Your task to perform on an android device: change timer sound Image 0: 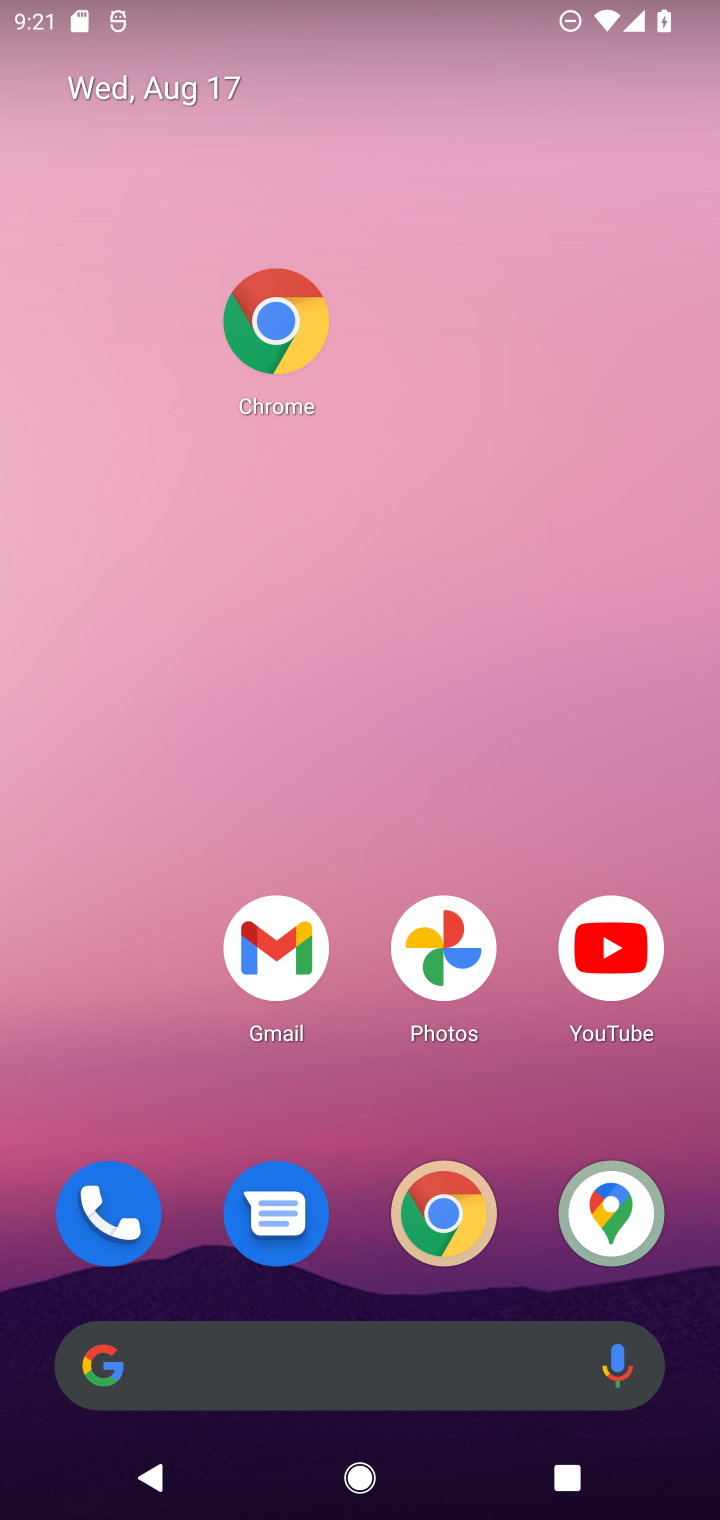
Step 0: drag from (369, 1273) to (421, 248)
Your task to perform on an android device: change timer sound Image 1: 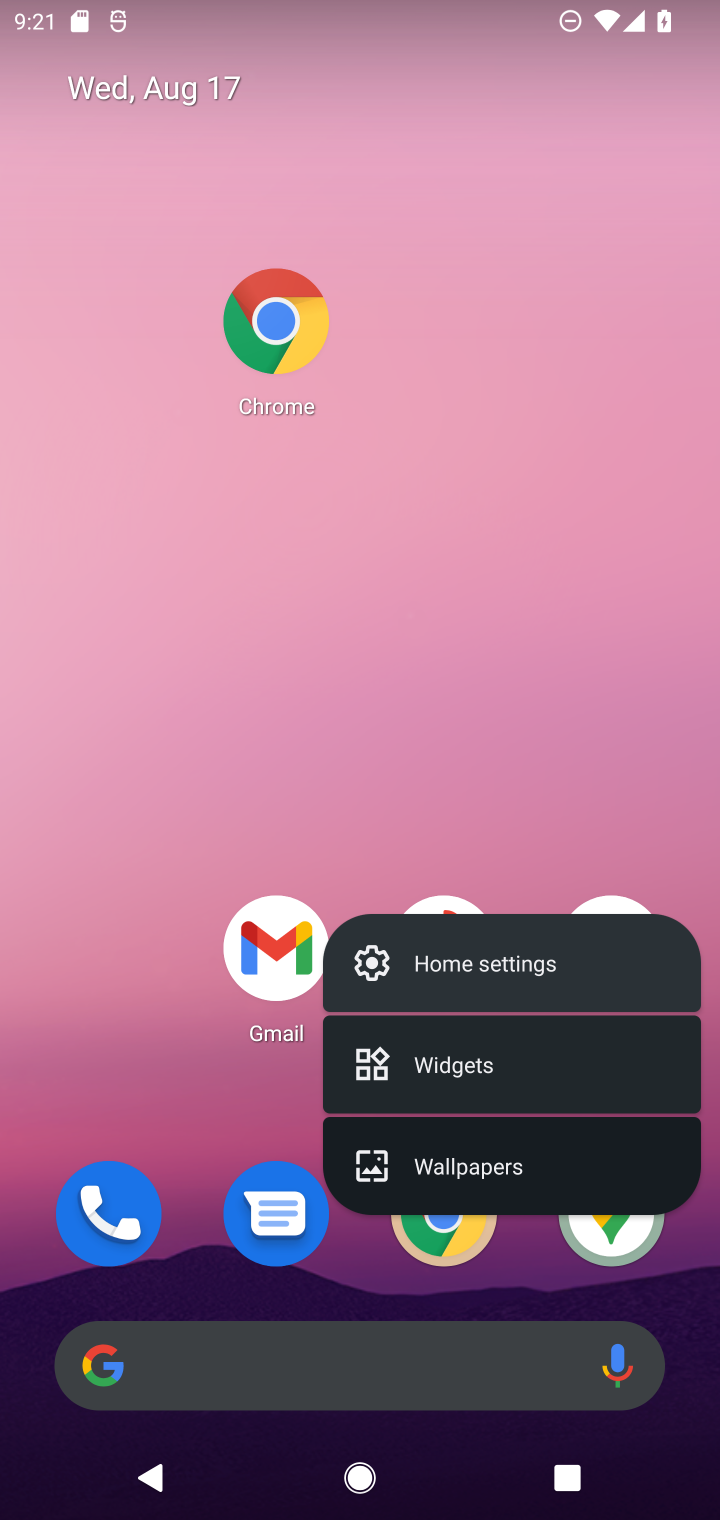
Step 1: click (421, 248)
Your task to perform on an android device: change timer sound Image 2: 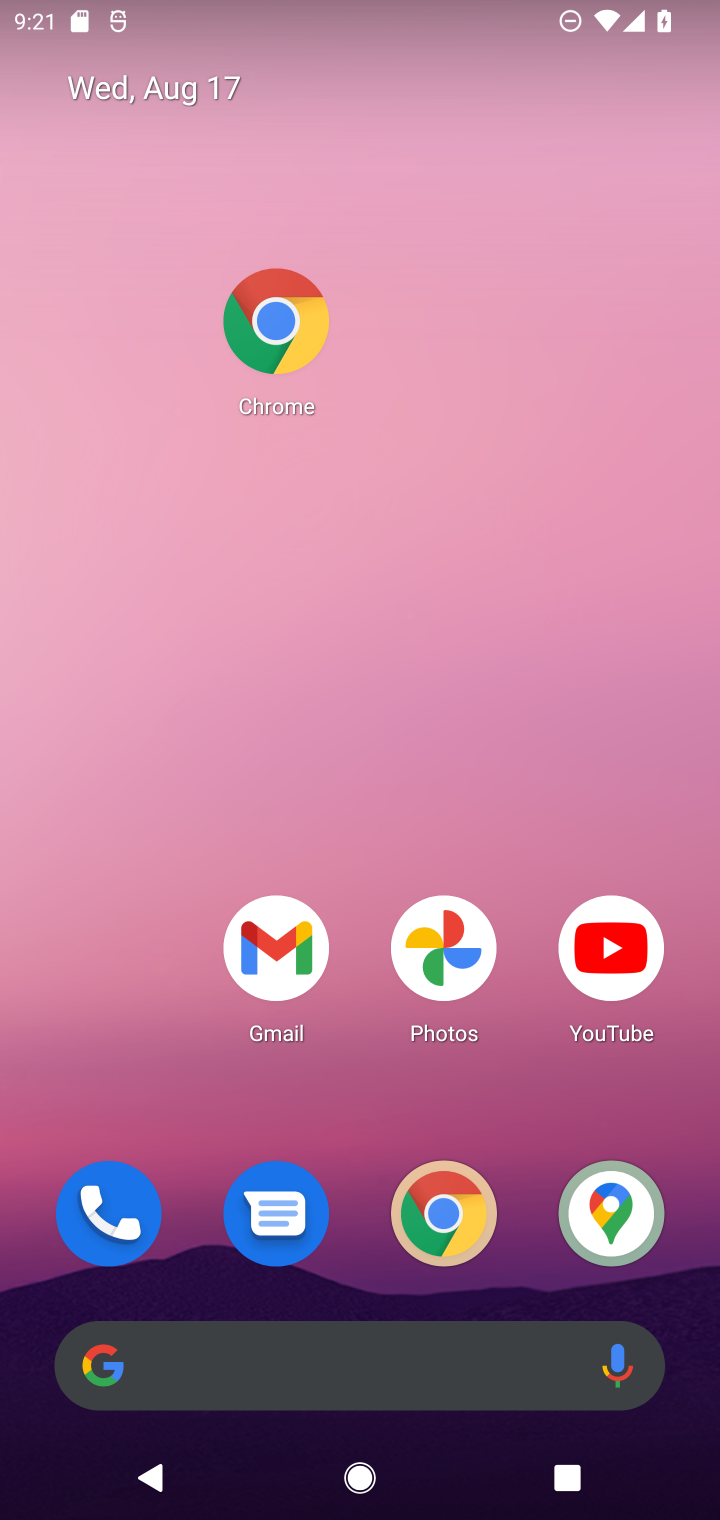
Step 2: drag from (361, 1287) to (465, 170)
Your task to perform on an android device: change timer sound Image 3: 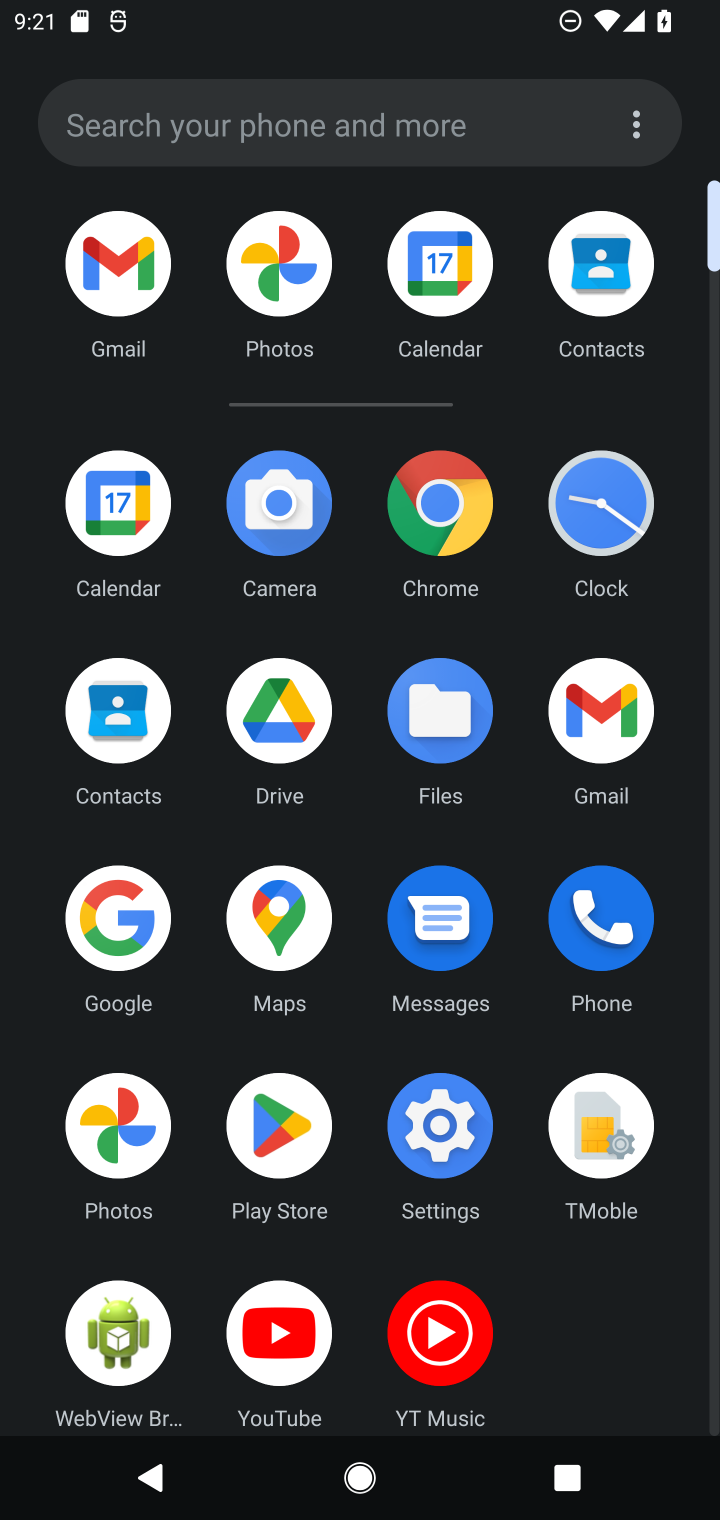
Step 3: click (452, 1121)
Your task to perform on an android device: change timer sound Image 4: 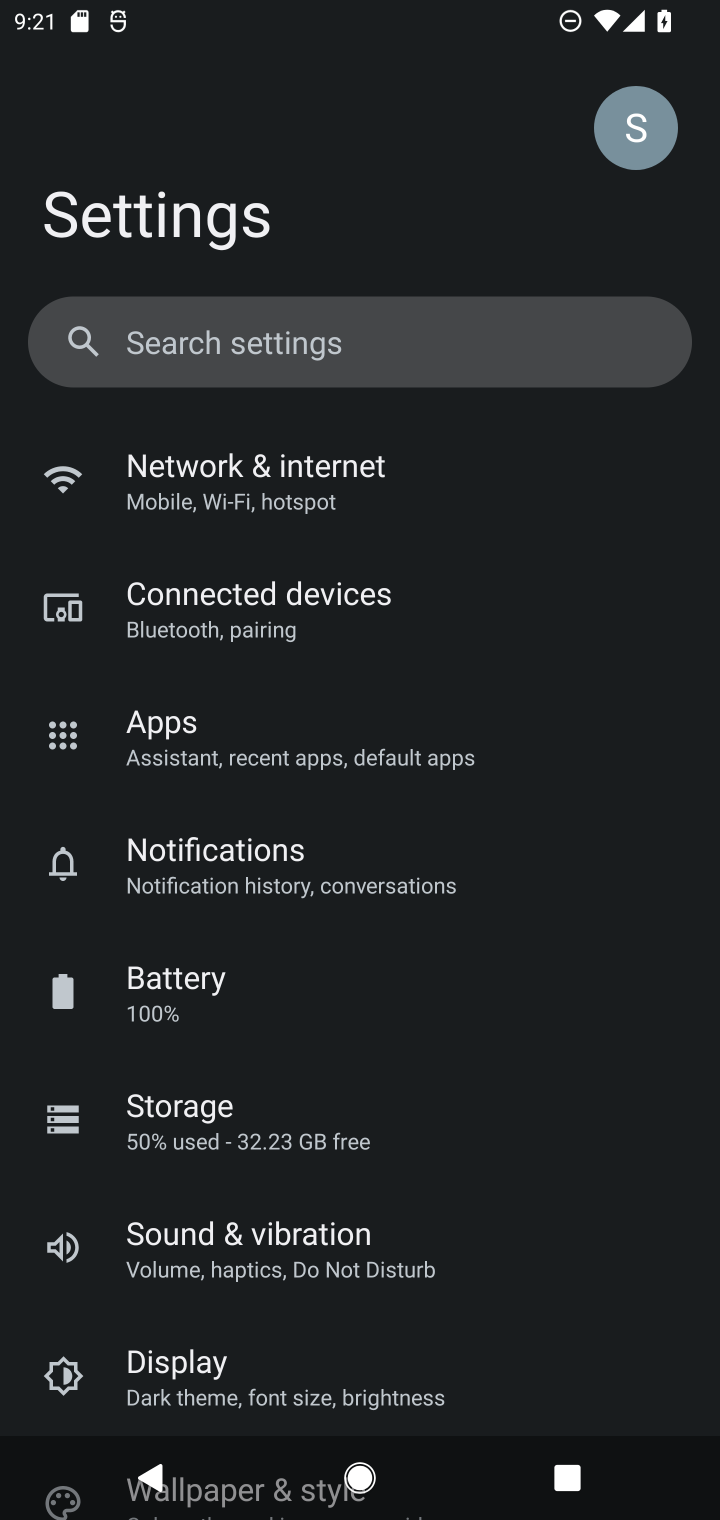
Step 4: click (433, 1252)
Your task to perform on an android device: change timer sound Image 5: 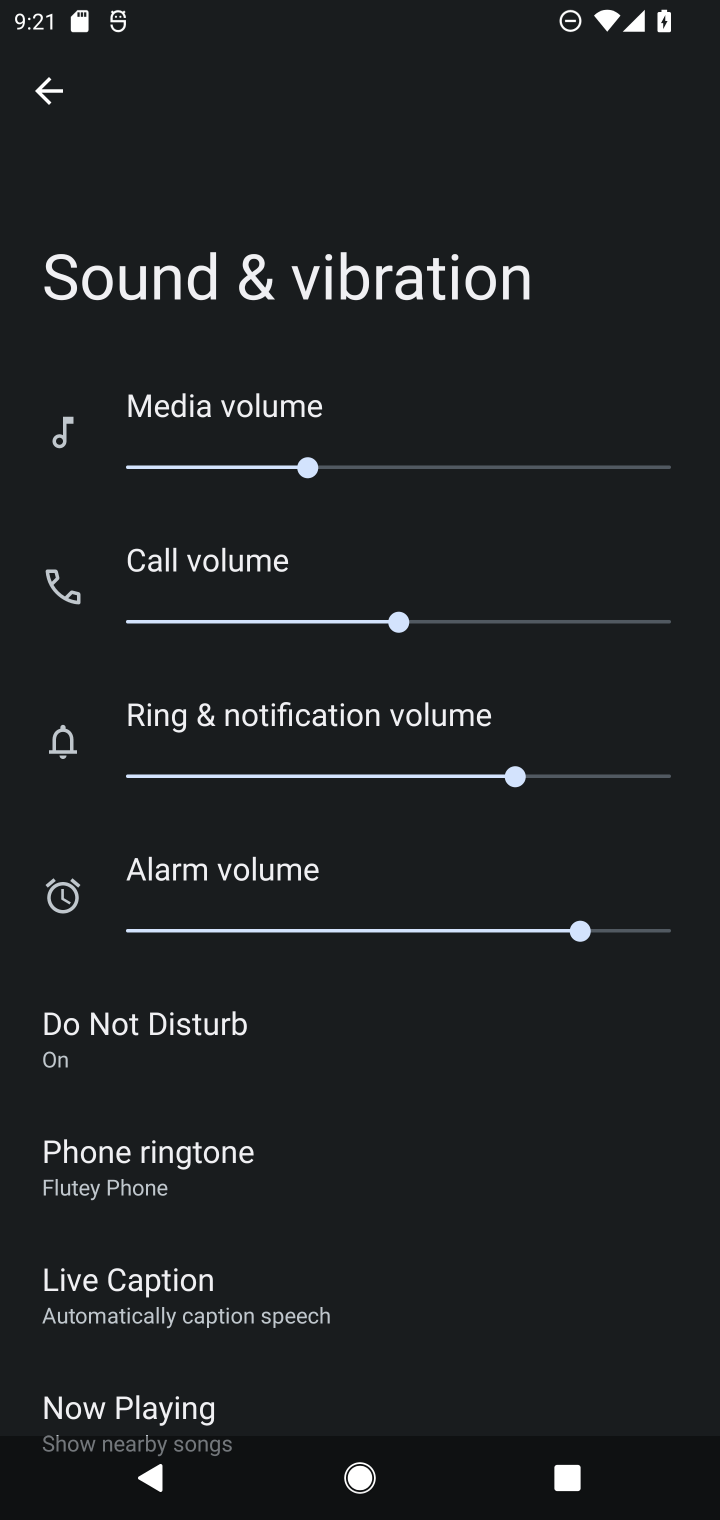
Step 5: task complete